Your task to perform on an android device: turn on notifications settings in the gmail app Image 0: 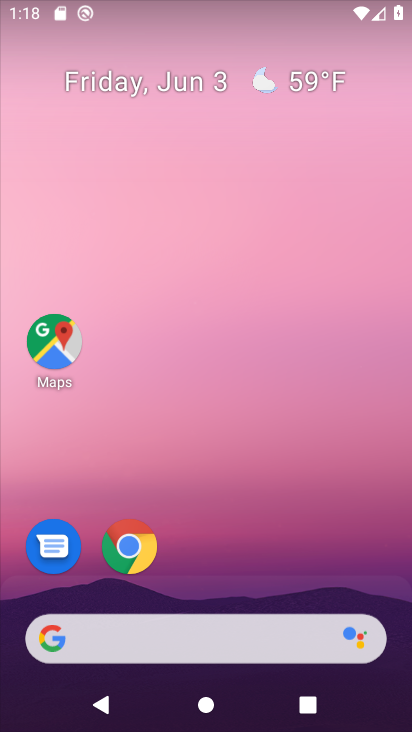
Step 0: drag from (325, 518) to (22, 486)
Your task to perform on an android device: turn on notifications settings in the gmail app Image 1: 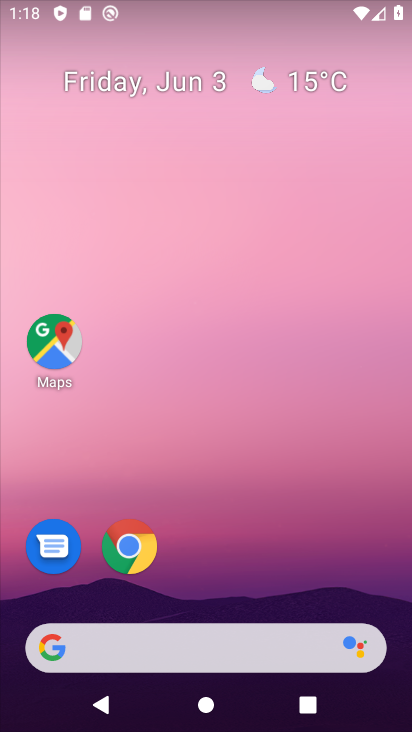
Step 1: click (206, 221)
Your task to perform on an android device: turn on notifications settings in the gmail app Image 2: 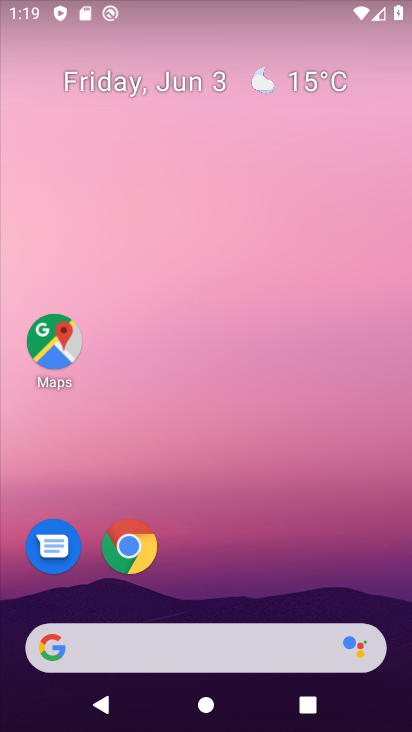
Step 2: drag from (346, 537) to (220, 0)
Your task to perform on an android device: turn on notifications settings in the gmail app Image 3: 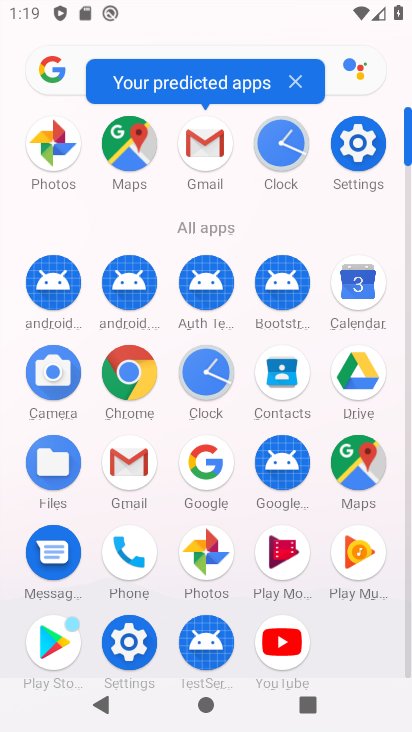
Step 3: click (183, 166)
Your task to perform on an android device: turn on notifications settings in the gmail app Image 4: 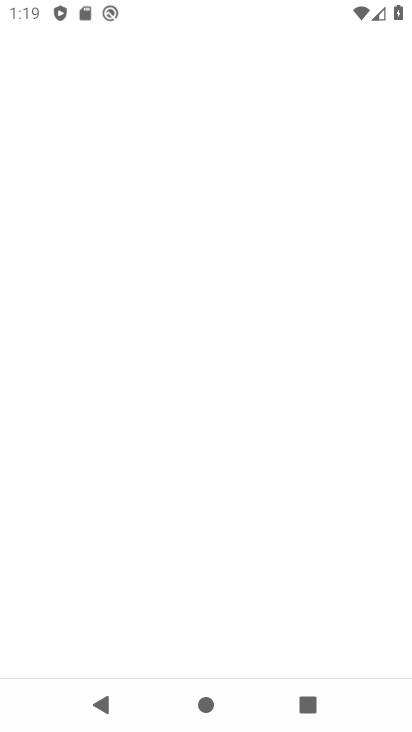
Step 4: click (208, 162)
Your task to perform on an android device: turn on notifications settings in the gmail app Image 5: 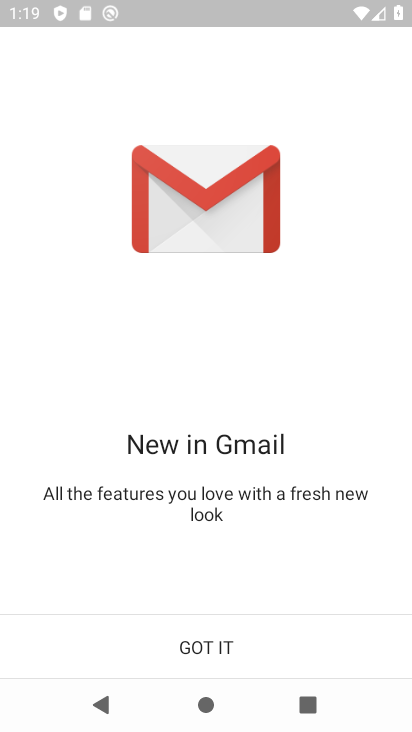
Step 5: click (224, 640)
Your task to perform on an android device: turn on notifications settings in the gmail app Image 6: 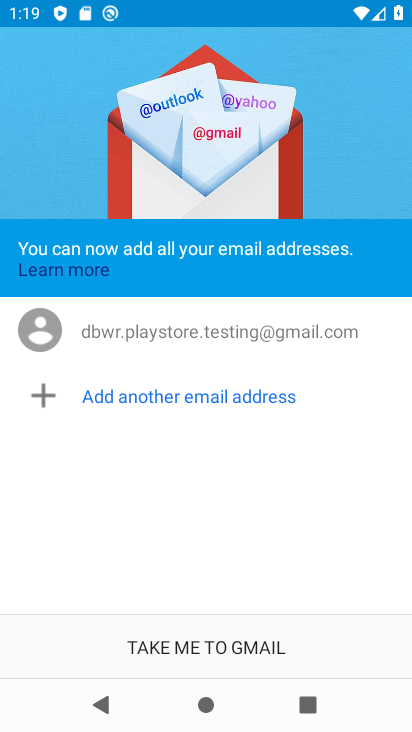
Step 6: click (253, 639)
Your task to perform on an android device: turn on notifications settings in the gmail app Image 7: 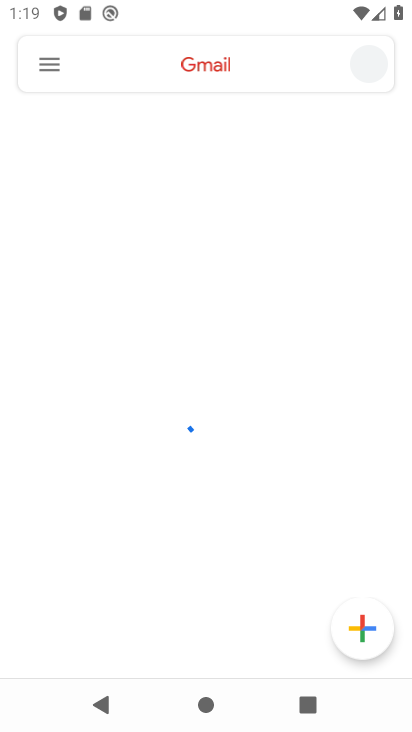
Step 7: click (46, 63)
Your task to perform on an android device: turn on notifications settings in the gmail app Image 8: 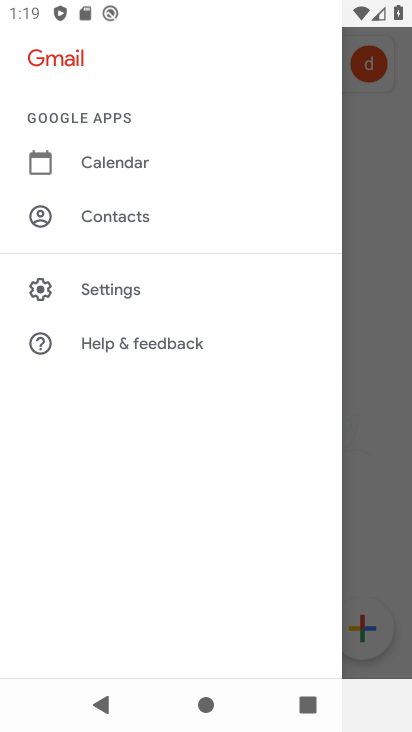
Step 8: click (109, 279)
Your task to perform on an android device: turn on notifications settings in the gmail app Image 9: 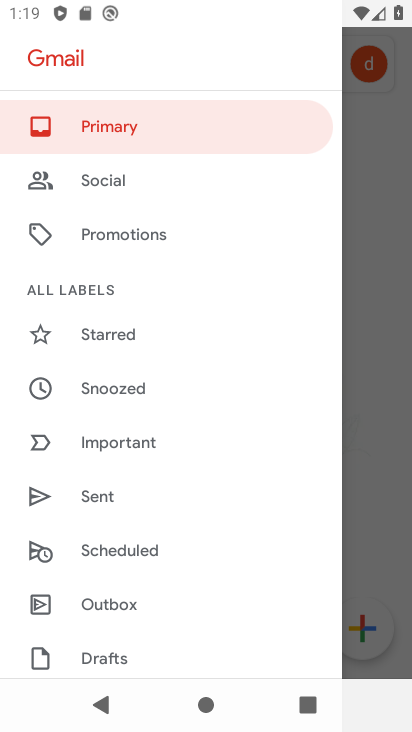
Step 9: drag from (193, 590) to (86, 114)
Your task to perform on an android device: turn on notifications settings in the gmail app Image 10: 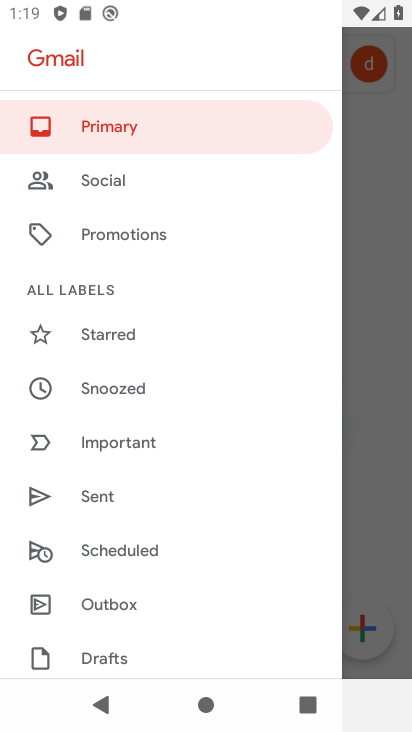
Step 10: drag from (166, 638) to (105, 213)
Your task to perform on an android device: turn on notifications settings in the gmail app Image 11: 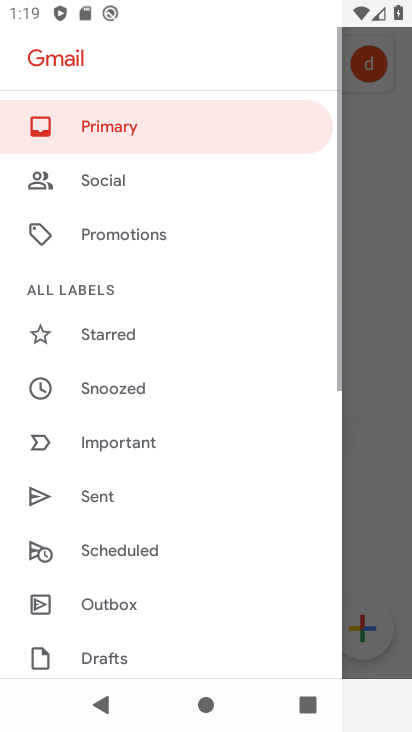
Step 11: drag from (208, 476) to (266, 257)
Your task to perform on an android device: turn on notifications settings in the gmail app Image 12: 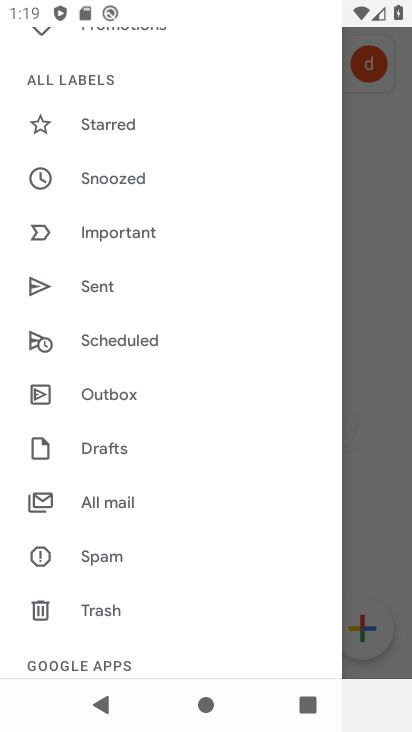
Step 12: drag from (95, 616) to (12, 162)
Your task to perform on an android device: turn on notifications settings in the gmail app Image 13: 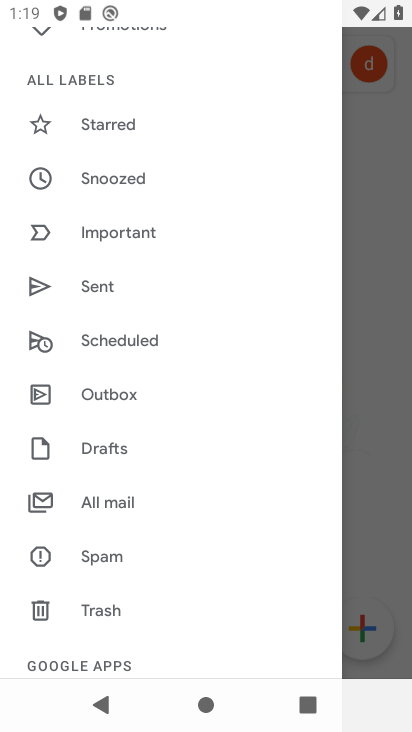
Step 13: drag from (115, 628) to (159, 217)
Your task to perform on an android device: turn on notifications settings in the gmail app Image 14: 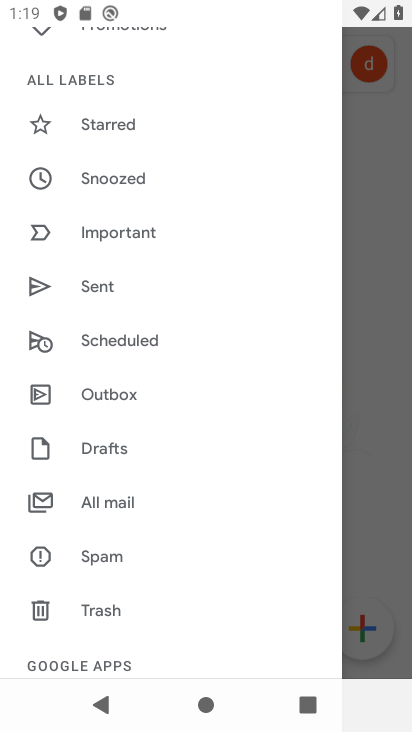
Step 14: drag from (246, 331) to (251, 34)
Your task to perform on an android device: turn on notifications settings in the gmail app Image 15: 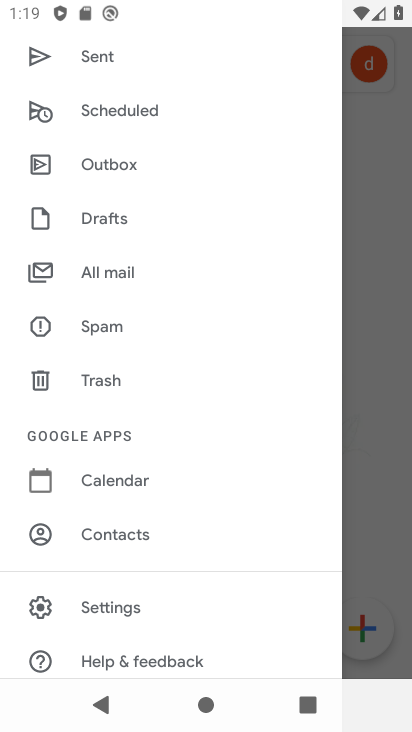
Step 15: click (104, 605)
Your task to perform on an android device: turn on notifications settings in the gmail app Image 16: 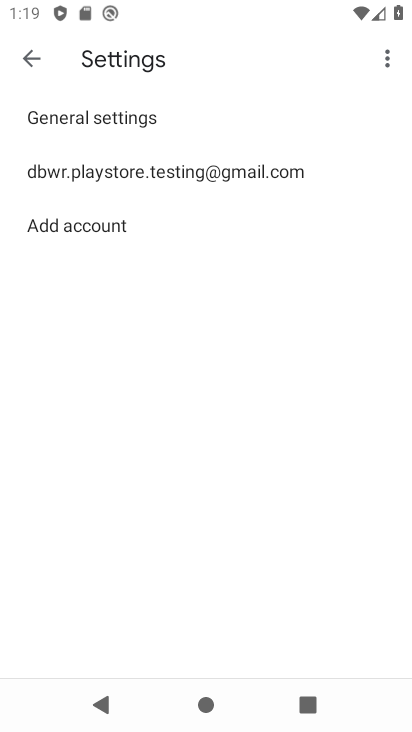
Step 16: click (99, 168)
Your task to perform on an android device: turn on notifications settings in the gmail app Image 17: 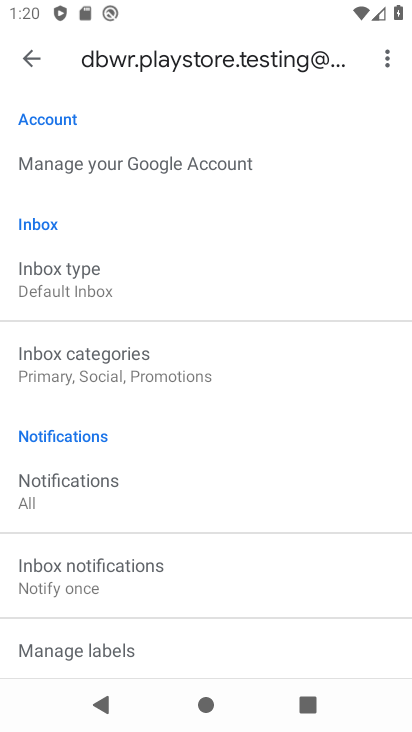
Step 17: click (78, 478)
Your task to perform on an android device: turn on notifications settings in the gmail app Image 18: 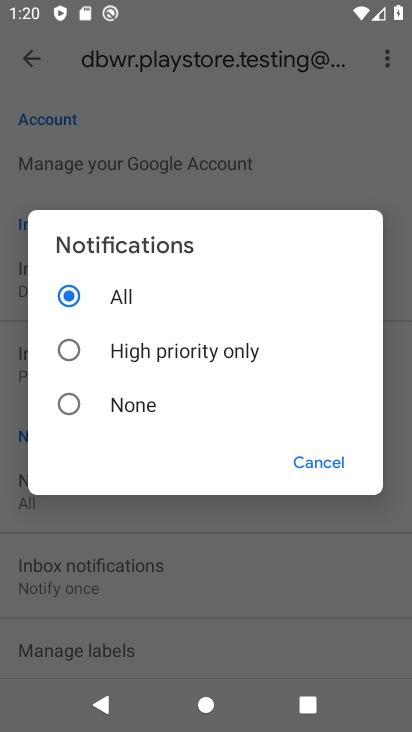
Step 18: task complete